Your task to perform on an android device: turn pop-ups off in chrome Image 0: 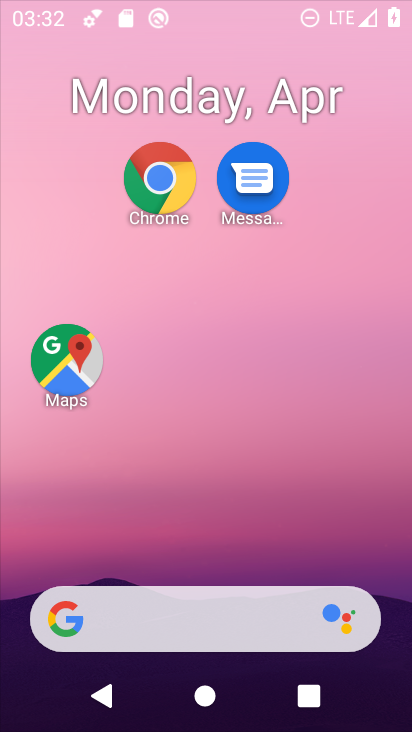
Step 0: drag from (311, 558) to (334, 6)
Your task to perform on an android device: turn pop-ups off in chrome Image 1: 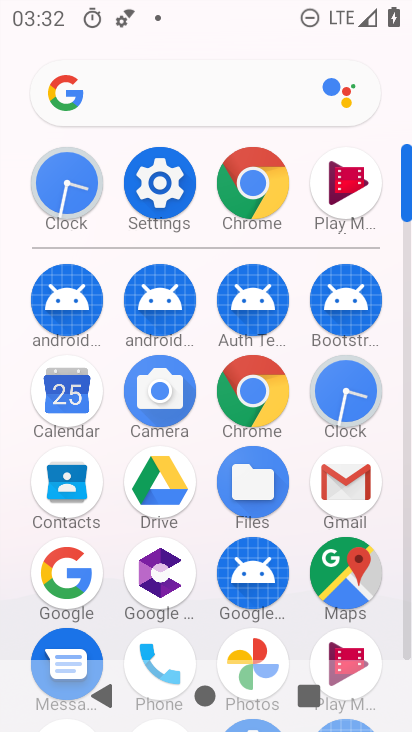
Step 1: click (261, 396)
Your task to perform on an android device: turn pop-ups off in chrome Image 2: 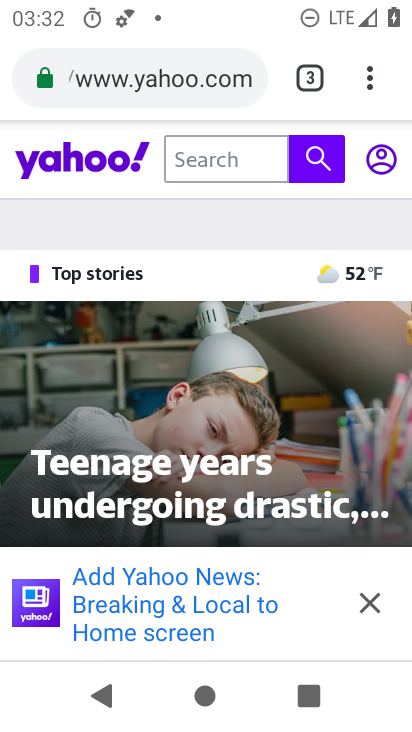
Step 2: drag from (365, 71) to (166, 543)
Your task to perform on an android device: turn pop-ups off in chrome Image 3: 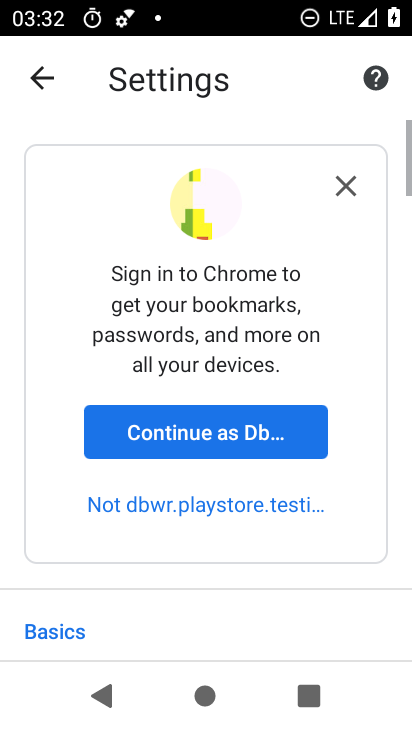
Step 3: drag from (191, 597) to (244, 41)
Your task to perform on an android device: turn pop-ups off in chrome Image 4: 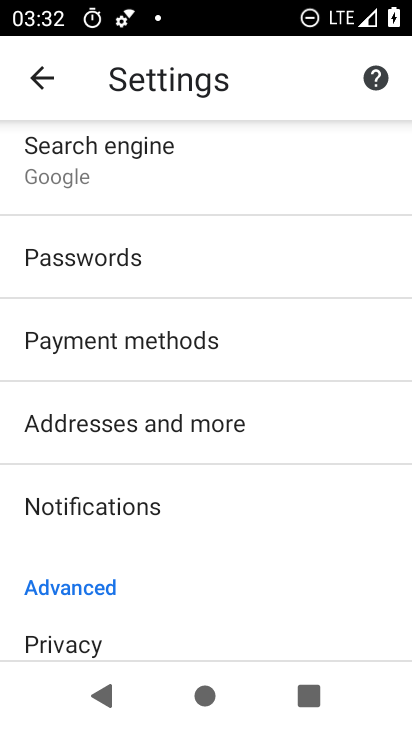
Step 4: drag from (228, 618) to (234, 106)
Your task to perform on an android device: turn pop-ups off in chrome Image 5: 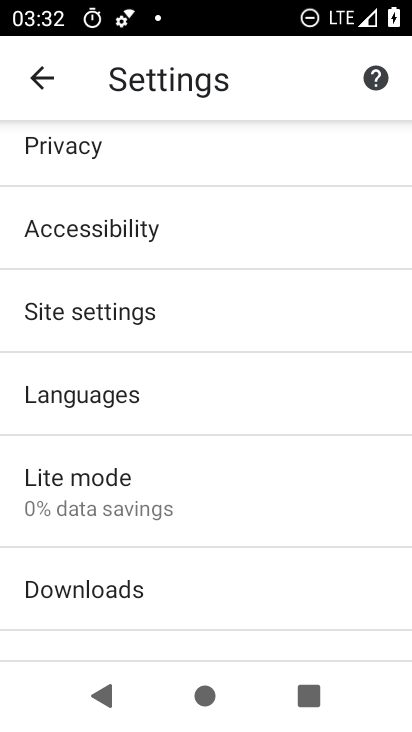
Step 5: click (182, 322)
Your task to perform on an android device: turn pop-ups off in chrome Image 6: 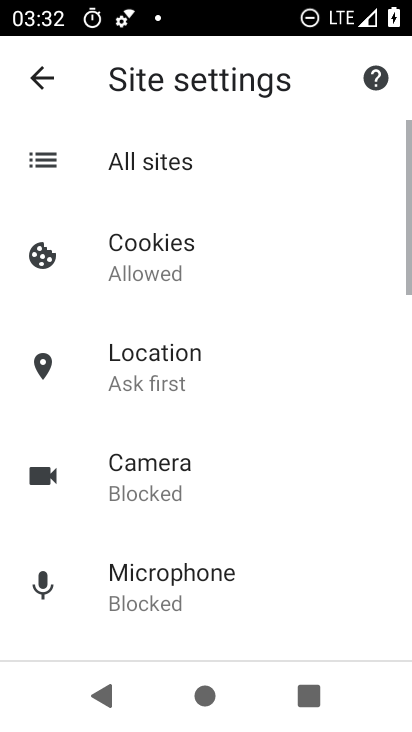
Step 6: drag from (221, 612) to (256, 120)
Your task to perform on an android device: turn pop-ups off in chrome Image 7: 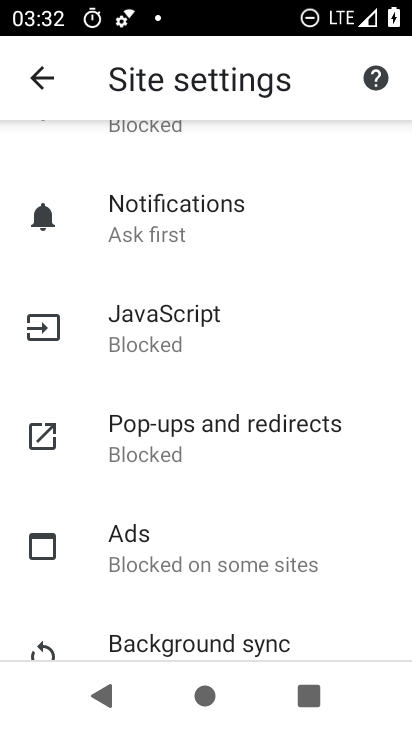
Step 7: drag from (297, 616) to (294, 424)
Your task to perform on an android device: turn pop-ups off in chrome Image 8: 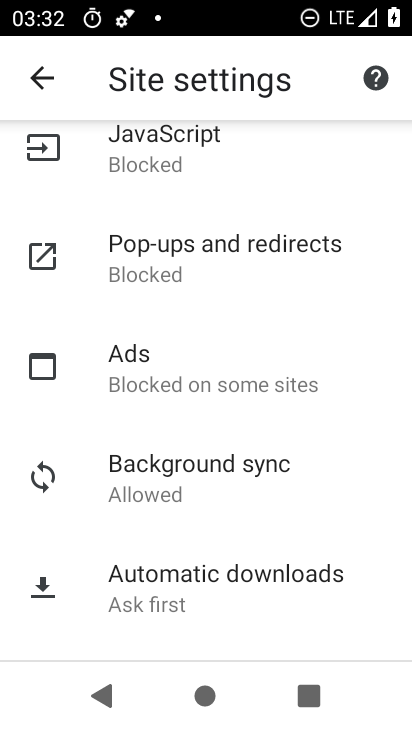
Step 8: click (293, 252)
Your task to perform on an android device: turn pop-ups off in chrome Image 9: 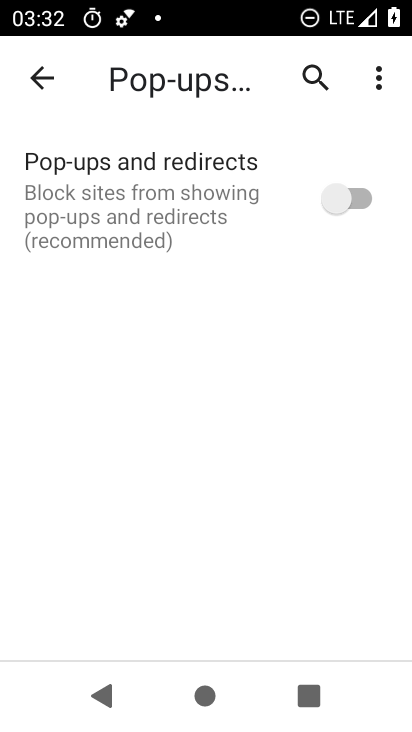
Step 9: task complete